Your task to perform on an android device: open chrome privacy settings Image 0: 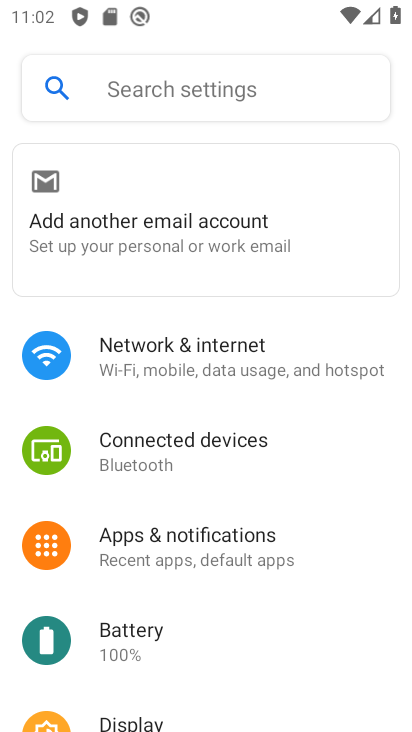
Step 0: press home button
Your task to perform on an android device: open chrome privacy settings Image 1: 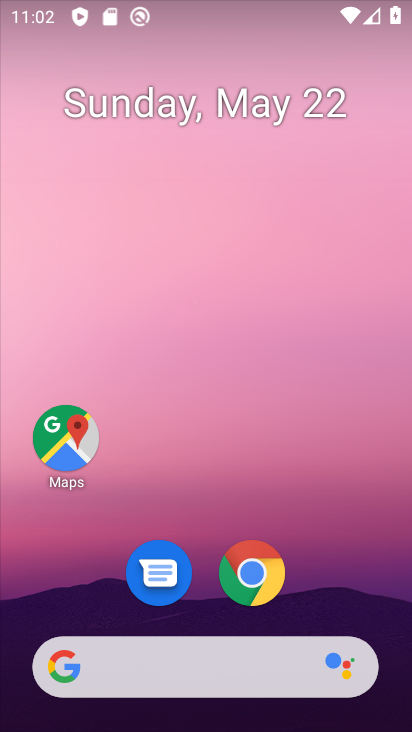
Step 1: click (246, 584)
Your task to perform on an android device: open chrome privacy settings Image 2: 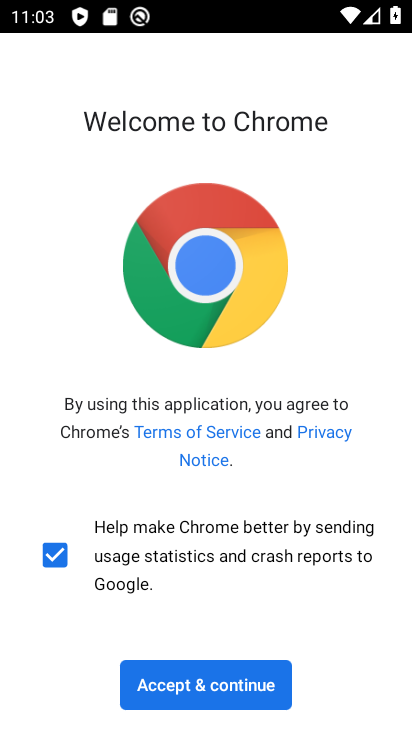
Step 2: click (192, 698)
Your task to perform on an android device: open chrome privacy settings Image 3: 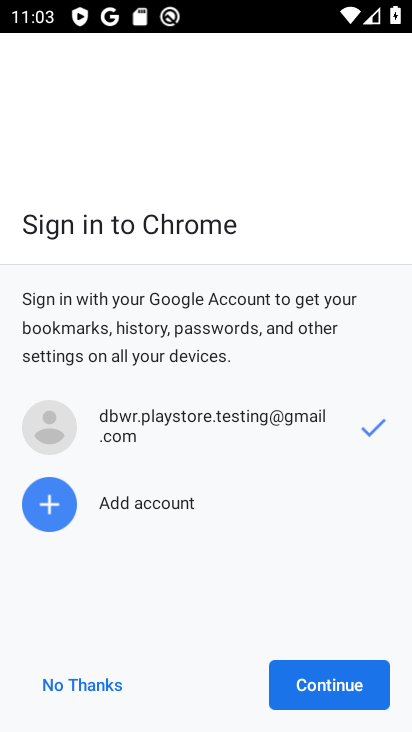
Step 3: click (315, 689)
Your task to perform on an android device: open chrome privacy settings Image 4: 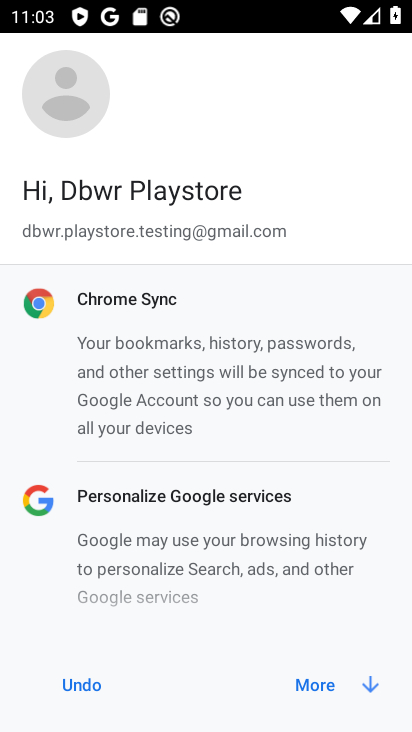
Step 4: click (315, 689)
Your task to perform on an android device: open chrome privacy settings Image 5: 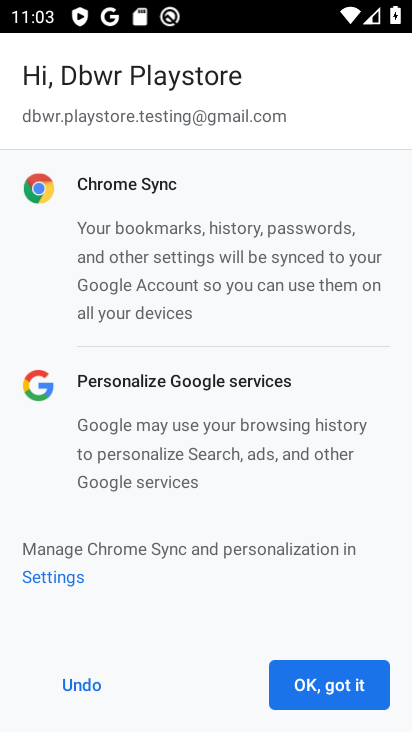
Step 5: click (315, 689)
Your task to perform on an android device: open chrome privacy settings Image 6: 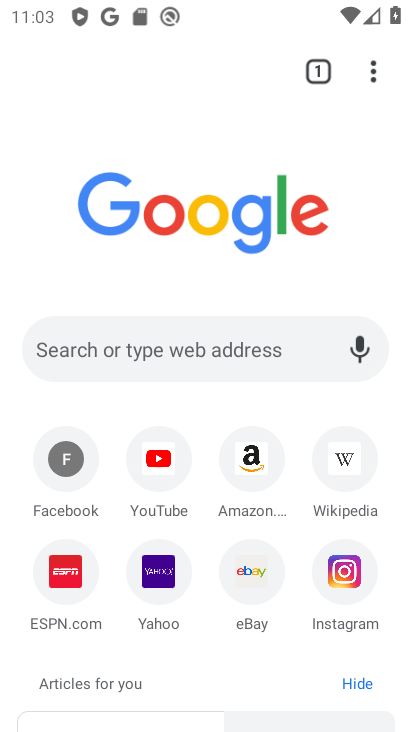
Step 6: drag from (372, 72) to (211, 622)
Your task to perform on an android device: open chrome privacy settings Image 7: 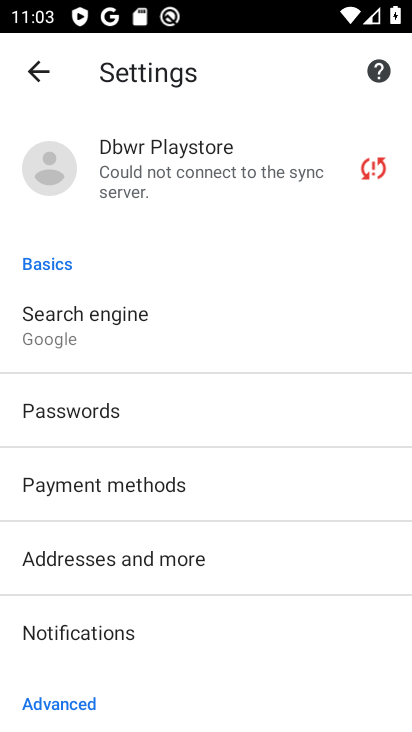
Step 7: drag from (243, 639) to (358, 257)
Your task to perform on an android device: open chrome privacy settings Image 8: 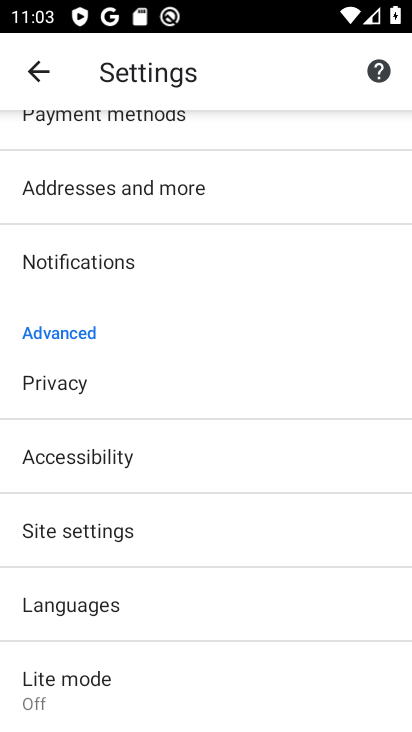
Step 8: click (68, 381)
Your task to perform on an android device: open chrome privacy settings Image 9: 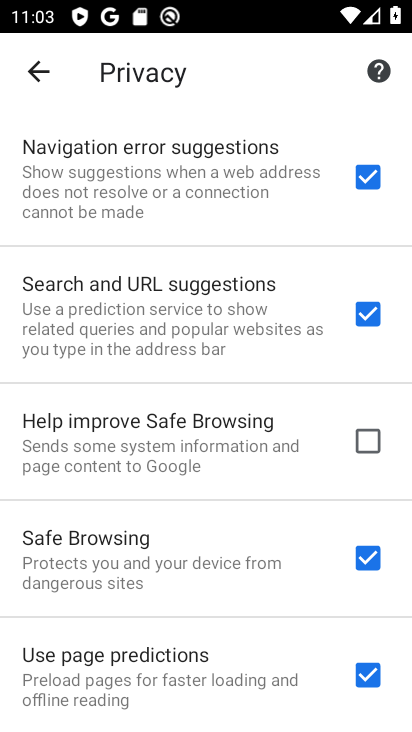
Step 9: task complete